Your task to perform on an android device: Find coffee shops on Maps Image 0: 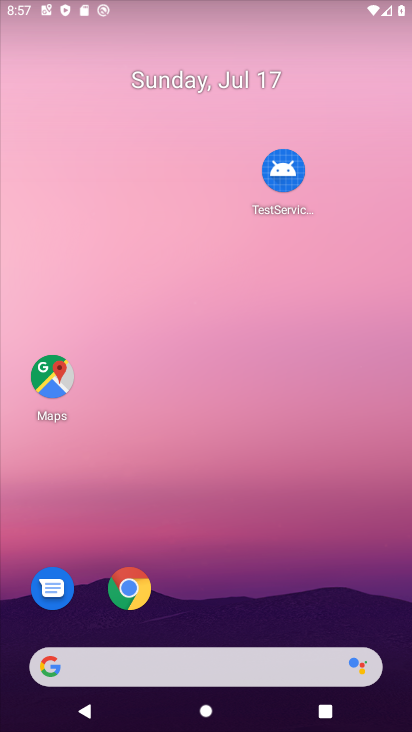
Step 0: drag from (220, 650) to (262, 88)
Your task to perform on an android device: Find coffee shops on Maps Image 1: 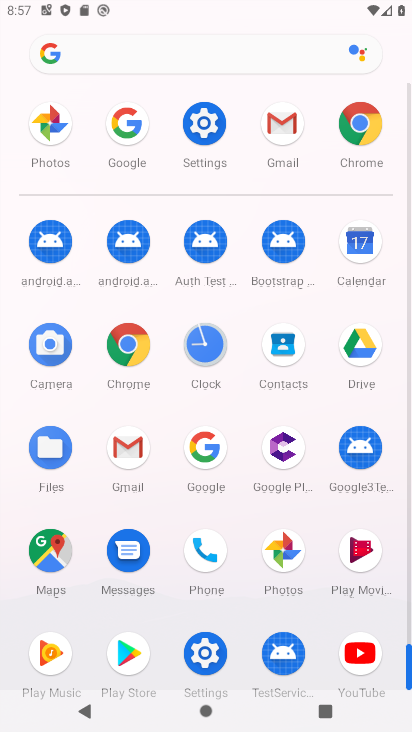
Step 1: click (31, 565)
Your task to perform on an android device: Find coffee shops on Maps Image 2: 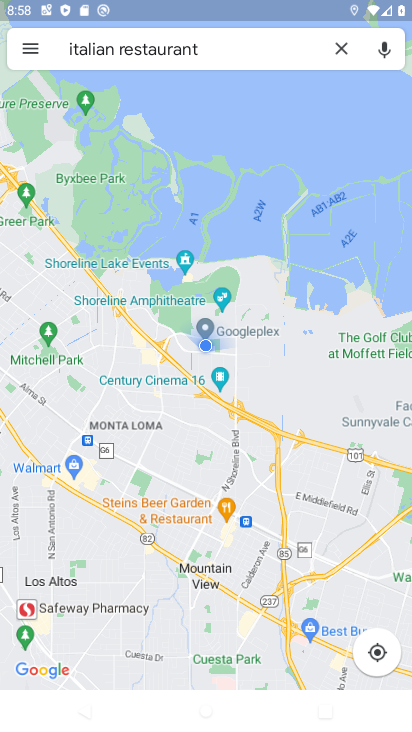
Step 2: click (344, 46)
Your task to perform on an android device: Find coffee shops on Maps Image 3: 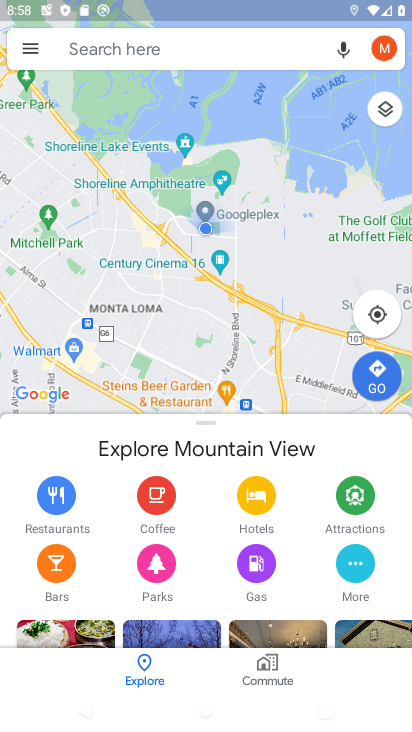
Step 3: click (213, 48)
Your task to perform on an android device: Find coffee shops on Maps Image 4: 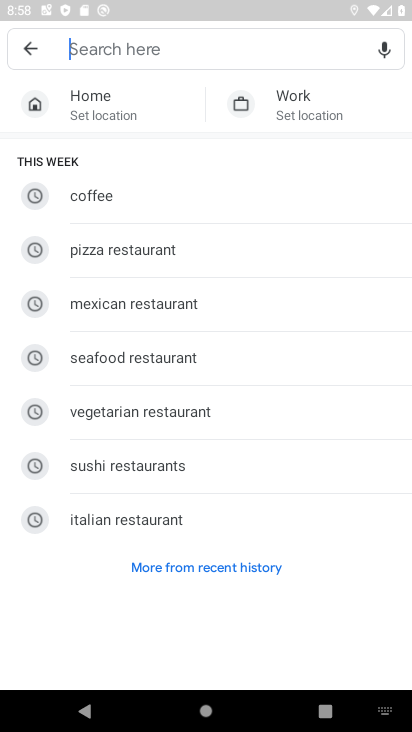
Step 4: type "coffee shops"
Your task to perform on an android device: Find coffee shops on Maps Image 5: 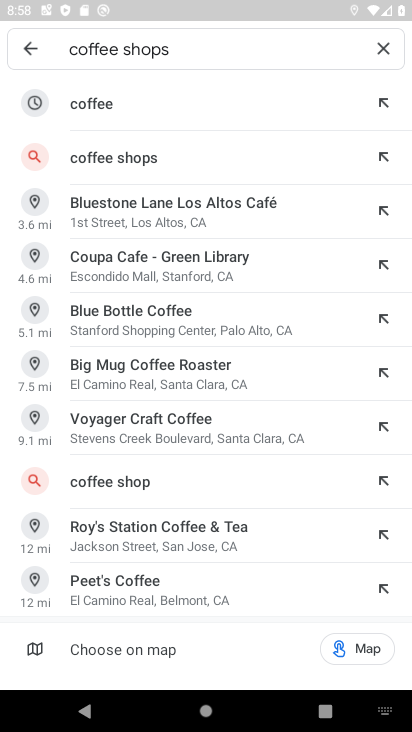
Step 5: click (141, 163)
Your task to perform on an android device: Find coffee shops on Maps Image 6: 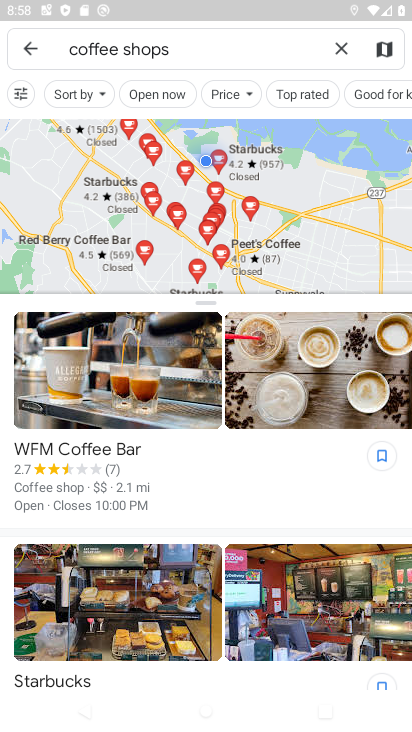
Step 6: task complete